Your task to perform on an android device: Is it going to rain tomorrow? Image 0: 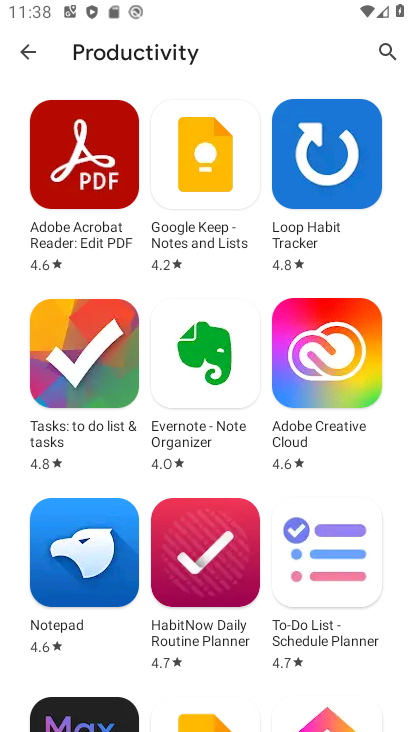
Step 0: press home button
Your task to perform on an android device: Is it going to rain tomorrow? Image 1: 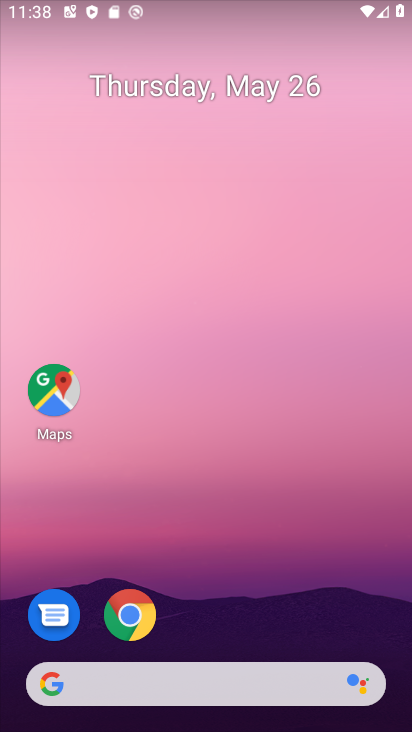
Step 1: drag from (183, 729) to (248, 242)
Your task to perform on an android device: Is it going to rain tomorrow? Image 2: 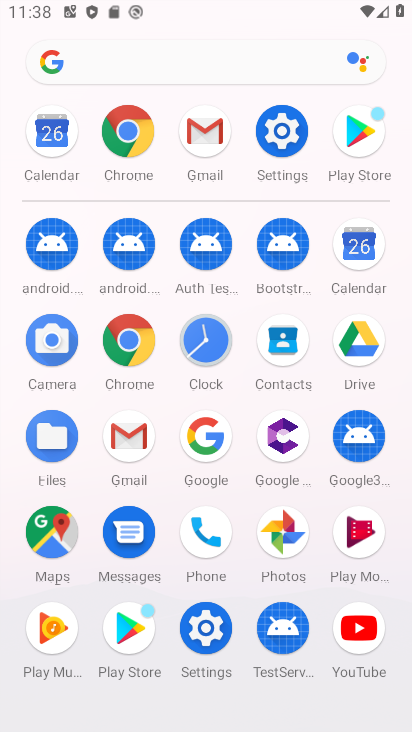
Step 2: click (131, 350)
Your task to perform on an android device: Is it going to rain tomorrow? Image 3: 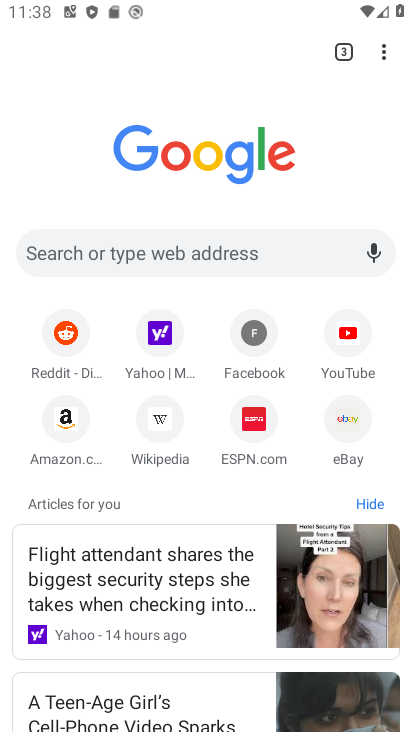
Step 3: press home button
Your task to perform on an android device: Is it going to rain tomorrow? Image 4: 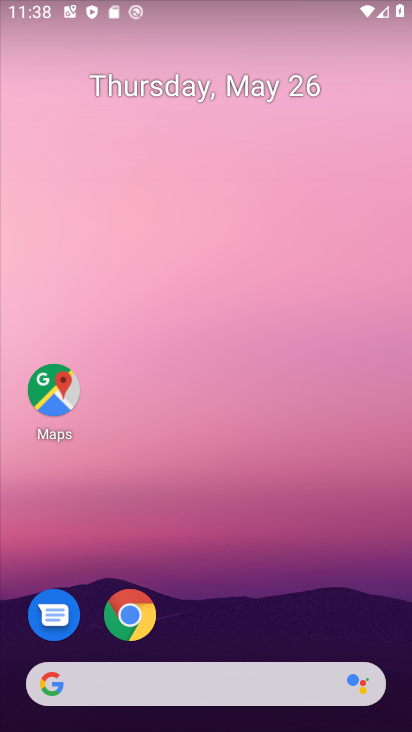
Step 4: drag from (19, 276) to (299, 300)
Your task to perform on an android device: Is it going to rain tomorrow? Image 5: 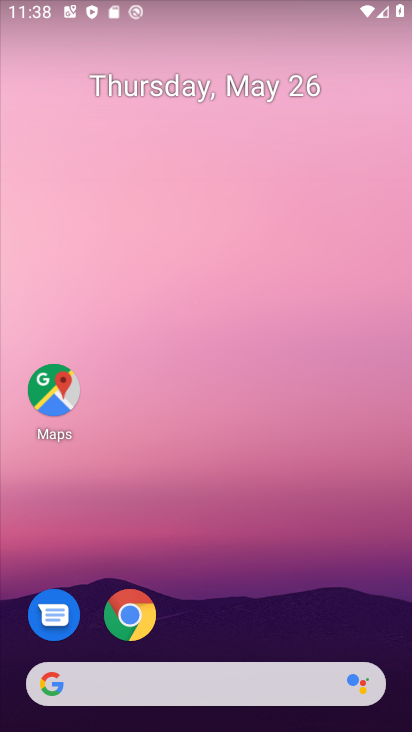
Step 5: drag from (34, 215) to (406, 127)
Your task to perform on an android device: Is it going to rain tomorrow? Image 6: 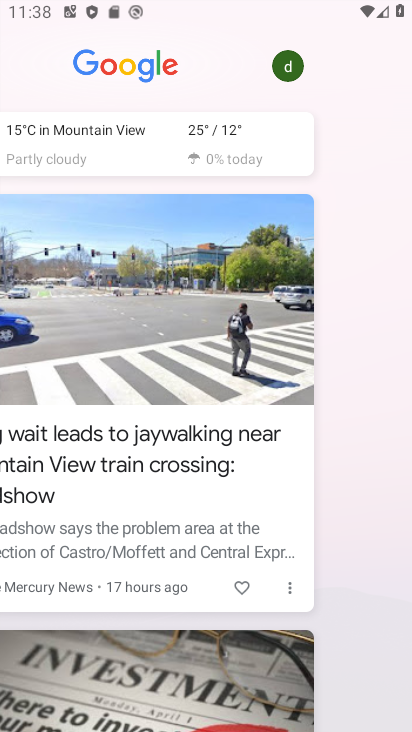
Step 6: click (256, 142)
Your task to perform on an android device: Is it going to rain tomorrow? Image 7: 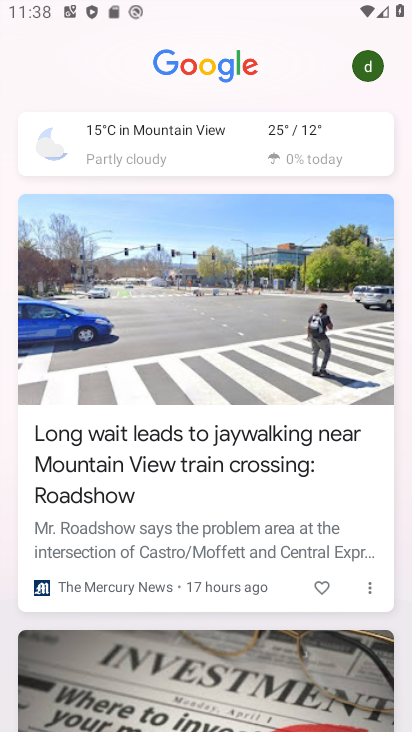
Step 7: click (256, 142)
Your task to perform on an android device: Is it going to rain tomorrow? Image 8: 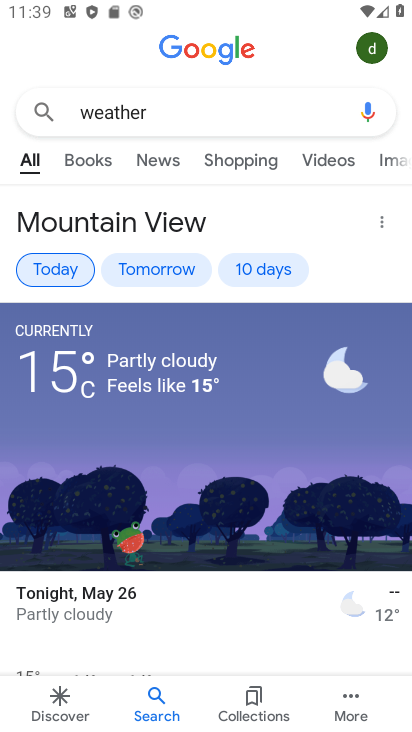
Step 8: click (162, 270)
Your task to perform on an android device: Is it going to rain tomorrow? Image 9: 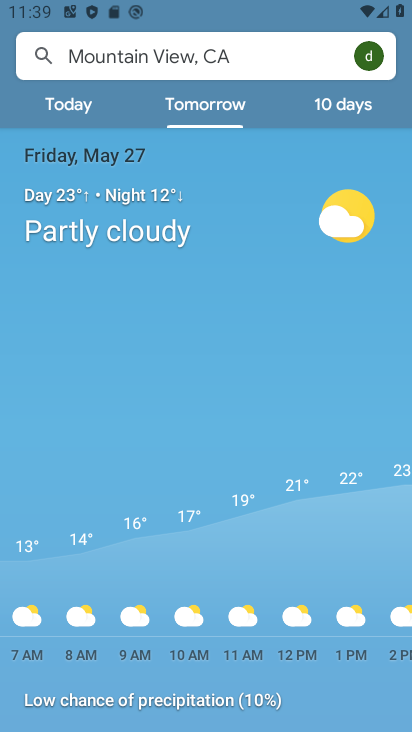
Step 9: drag from (392, 478) to (367, 69)
Your task to perform on an android device: Is it going to rain tomorrow? Image 10: 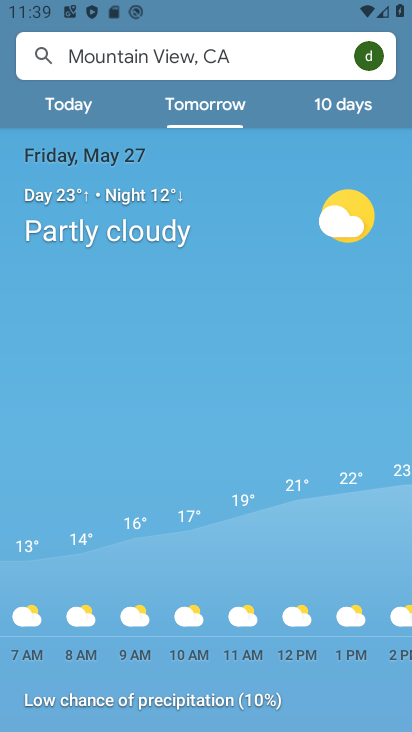
Step 10: press back button
Your task to perform on an android device: Is it going to rain tomorrow? Image 11: 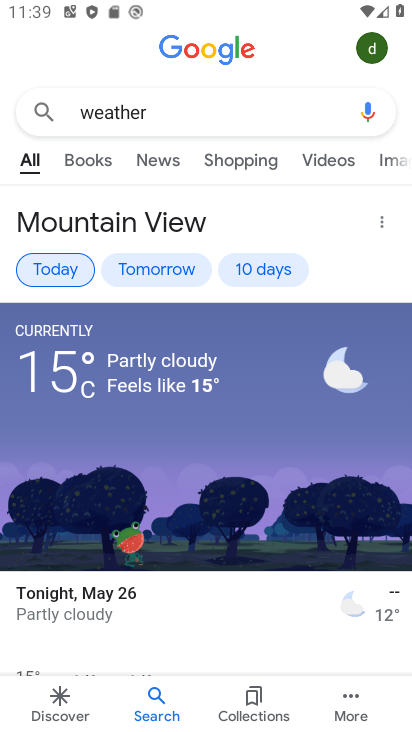
Step 11: click (189, 260)
Your task to perform on an android device: Is it going to rain tomorrow? Image 12: 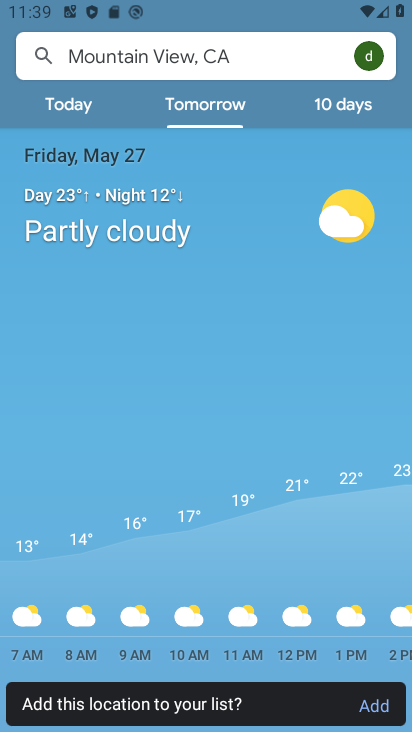
Step 12: task complete